Your task to perform on an android device: turn on data saver in the chrome app Image 0: 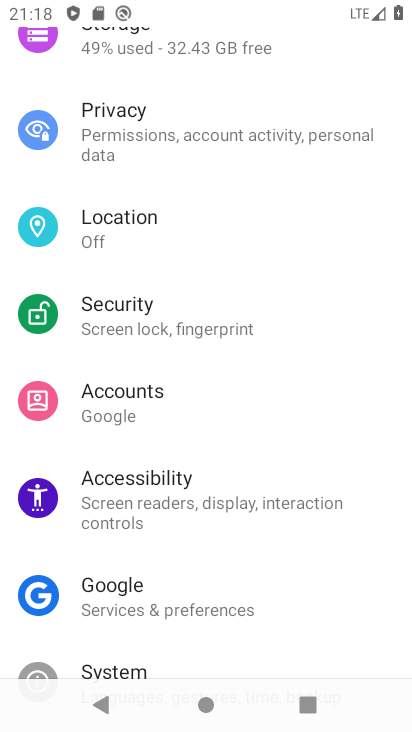
Step 0: press home button
Your task to perform on an android device: turn on data saver in the chrome app Image 1: 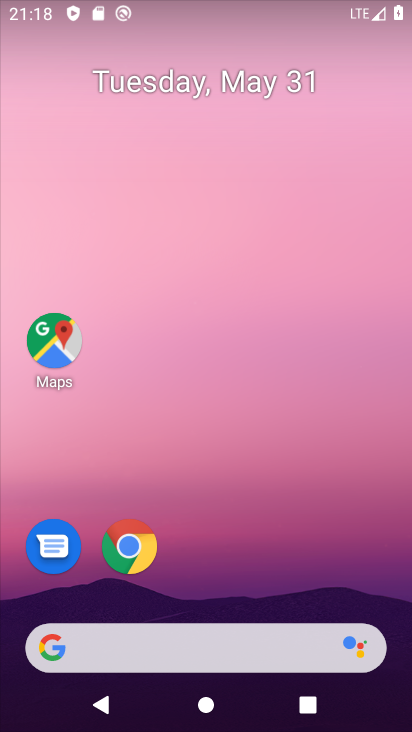
Step 1: click (134, 542)
Your task to perform on an android device: turn on data saver in the chrome app Image 2: 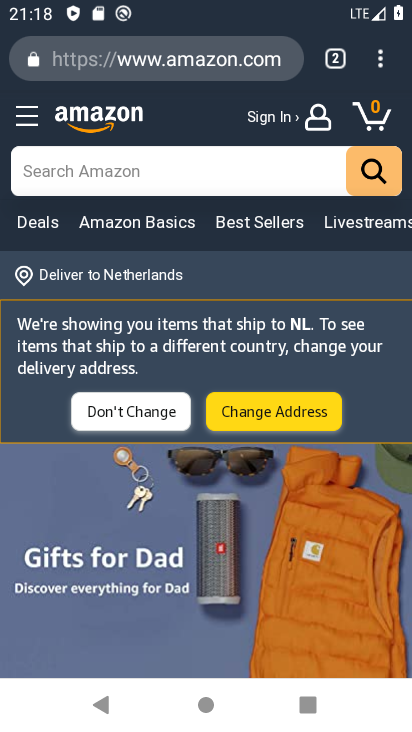
Step 2: click (380, 51)
Your task to perform on an android device: turn on data saver in the chrome app Image 3: 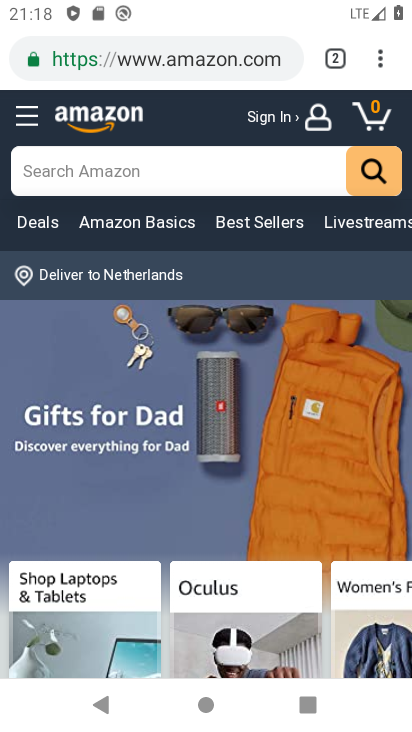
Step 3: click (381, 56)
Your task to perform on an android device: turn on data saver in the chrome app Image 4: 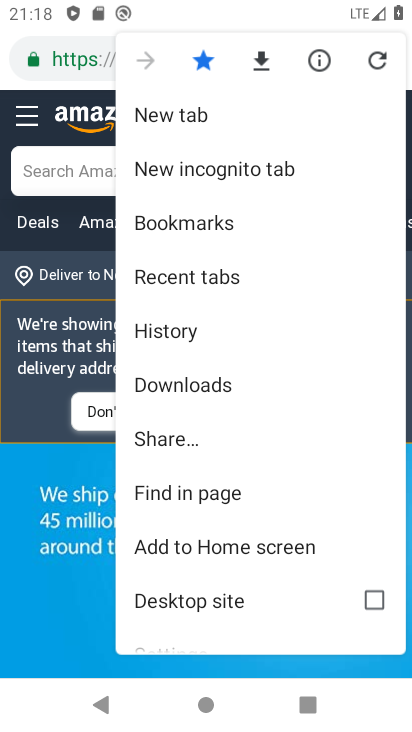
Step 4: drag from (253, 607) to (258, 380)
Your task to perform on an android device: turn on data saver in the chrome app Image 5: 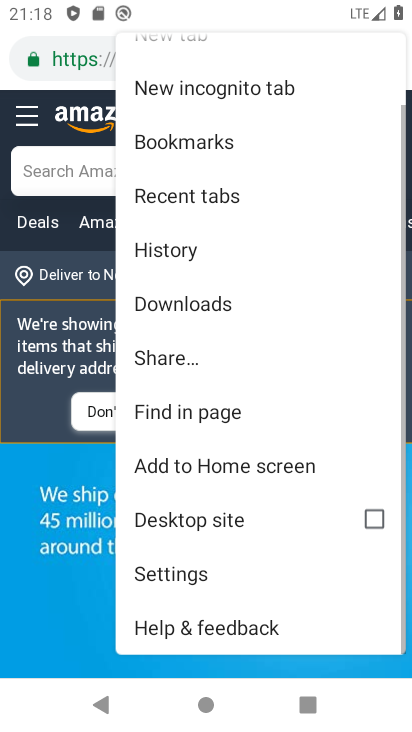
Step 5: click (189, 563)
Your task to perform on an android device: turn on data saver in the chrome app Image 6: 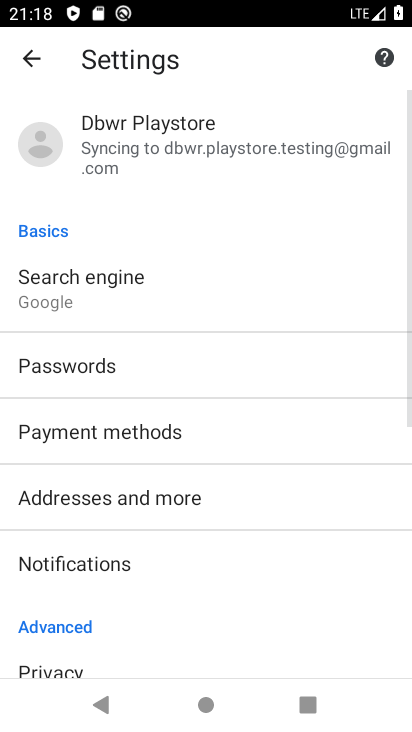
Step 6: drag from (270, 649) to (246, 277)
Your task to perform on an android device: turn on data saver in the chrome app Image 7: 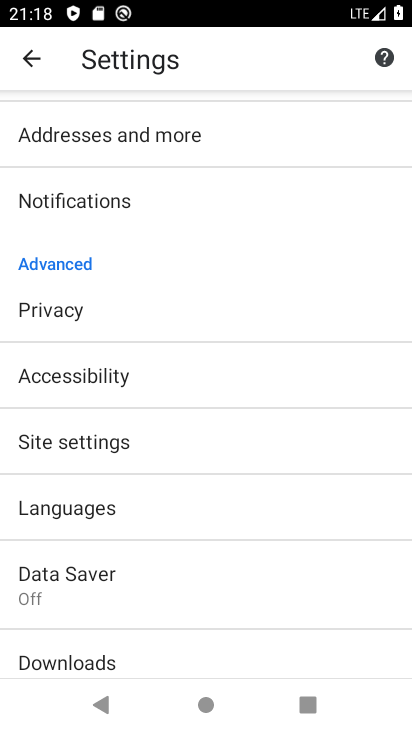
Step 7: click (49, 575)
Your task to perform on an android device: turn on data saver in the chrome app Image 8: 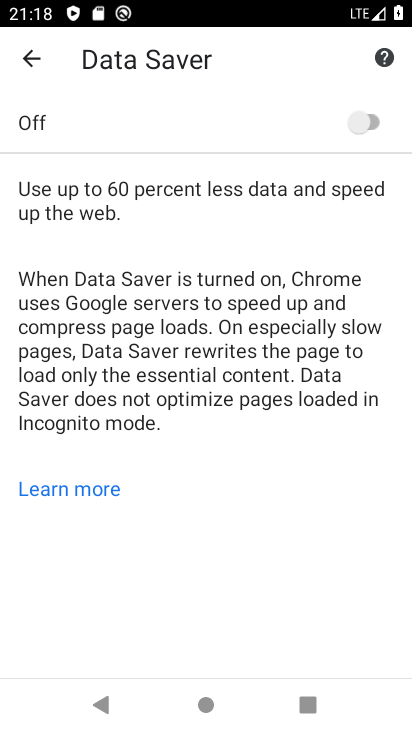
Step 8: click (370, 120)
Your task to perform on an android device: turn on data saver in the chrome app Image 9: 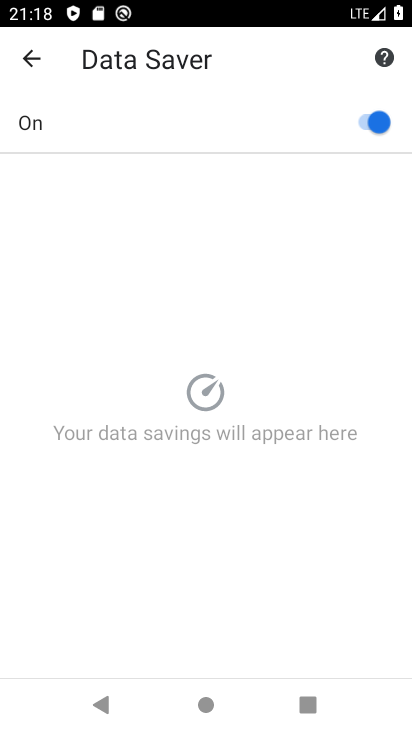
Step 9: task complete